Your task to perform on an android device: Go to Reddit.com Image 0: 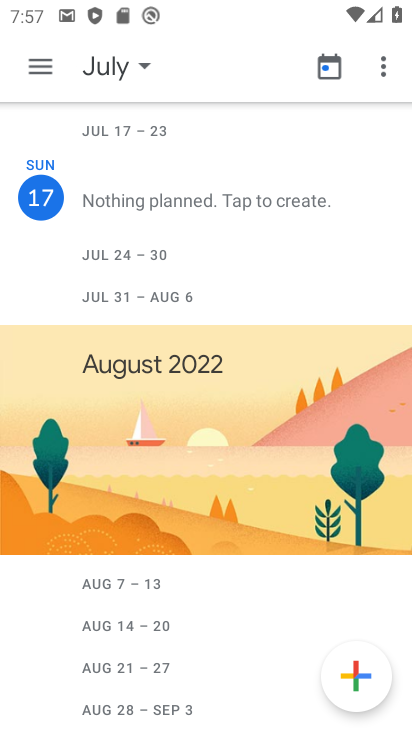
Step 0: press home button
Your task to perform on an android device: Go to Reddit.com Image 1: 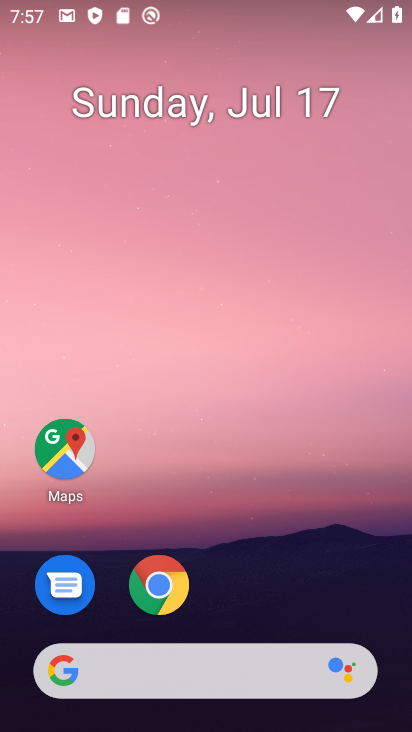
Step 1: click (158, 596)
Your task to perform on an android device: Go to Reddit.com Image 2: 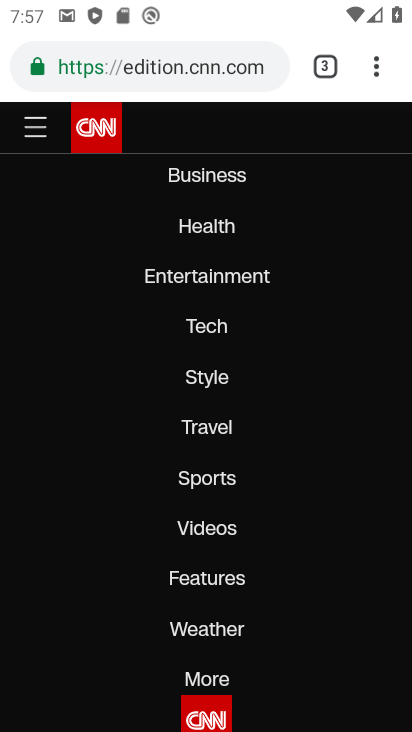
Step 2: drag from (372, 72) to (251, 131)
Your task to perform on an android device: Go to Reddit.com Image 3: 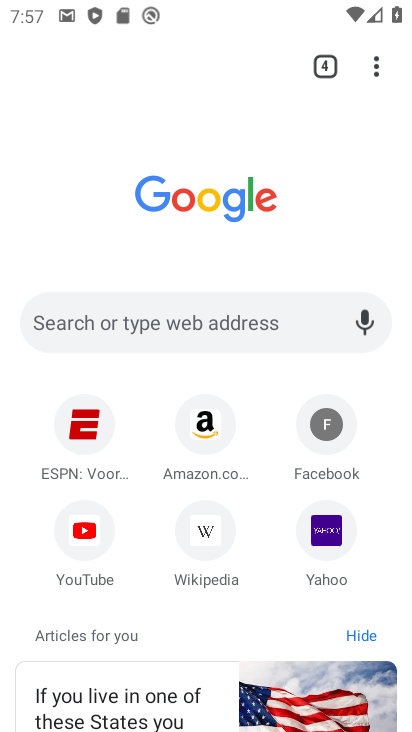
Step 3: click (165, 320)
Your task to perform on an android device: Go to Reddit.com Image 4: 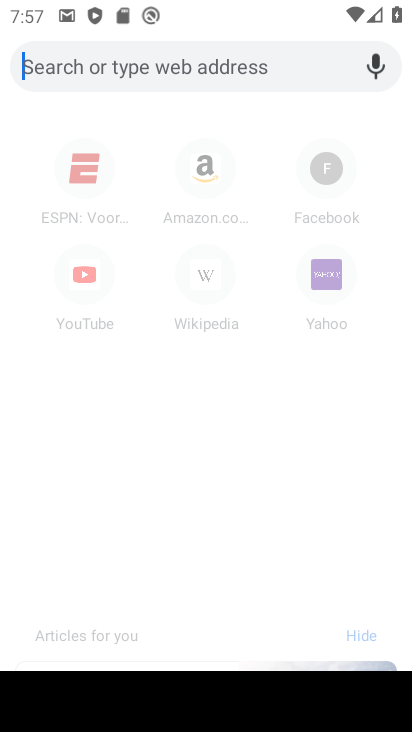
Step 4: type "reddit.com"
Your task to perform on an android device: Go to Reddit.com Image 5: 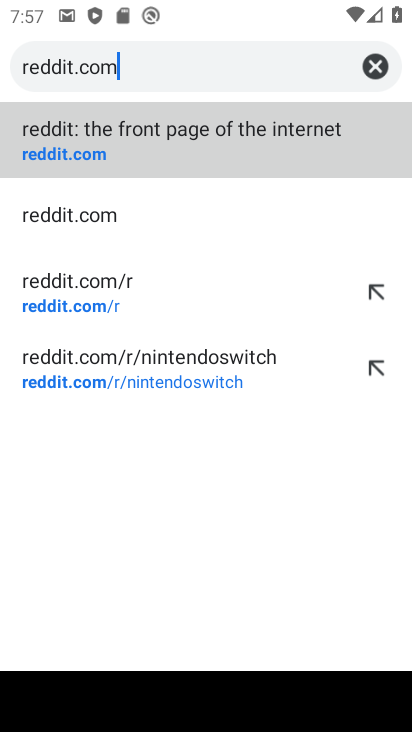
Step 5: click (88, 137)
Your task to perform on an android device: Go to Reddit.com Image 6: 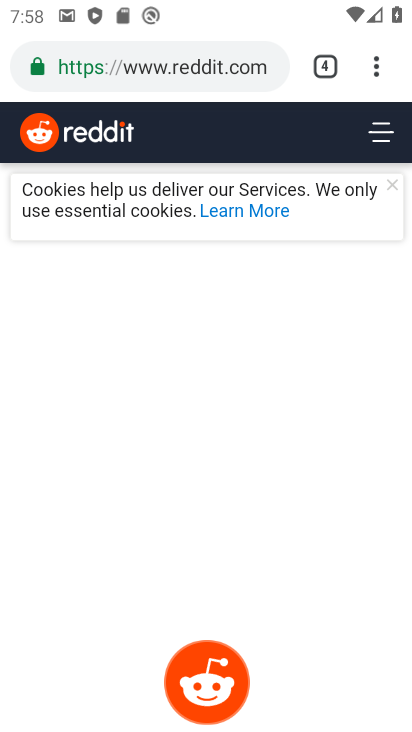
Step 6: task complete